Your task to perform on an android device: Open the phone app and click the voicemail tab. Image 0: 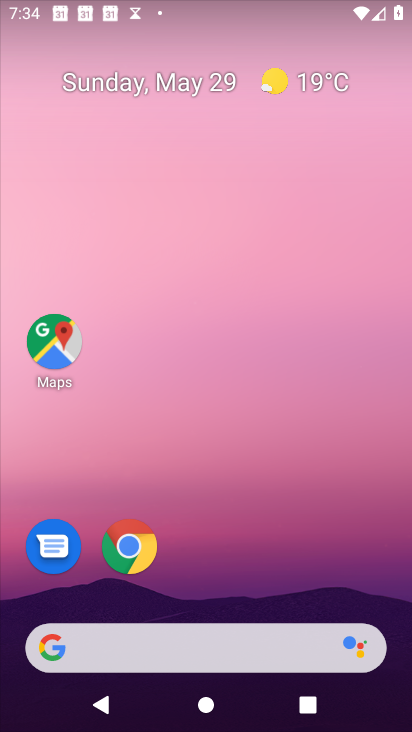
Step 0: drag from (197, 587) to (212, 1)
Your task to perform on an android device: Open the phone app and click the voicemail tab. Image 1: 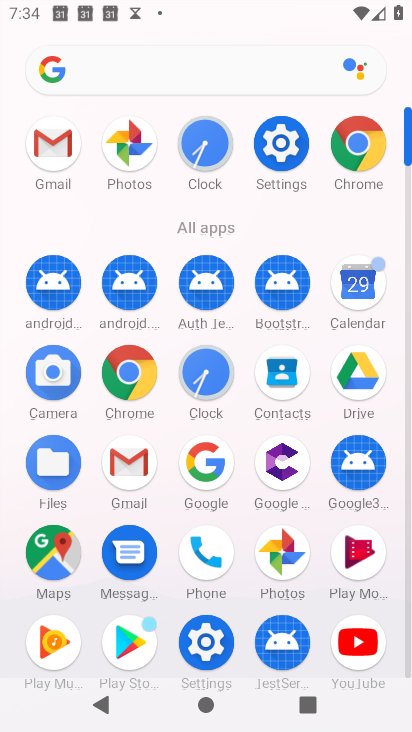
Step 1: click (200, 553)
Your task to perform on an android device: Open the phone app and click the voicemail tab. Image 2: 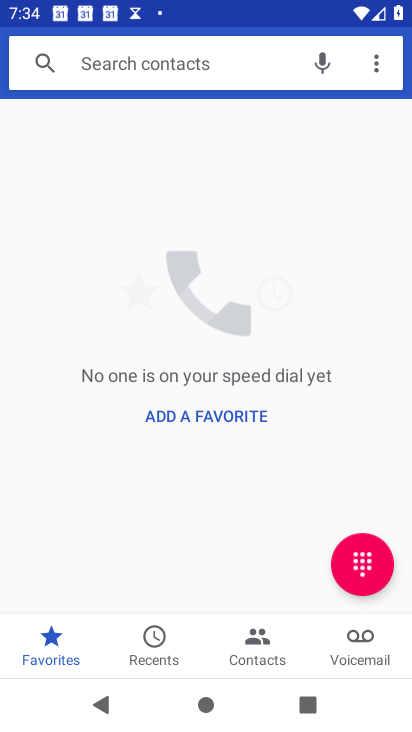
Step 2: click (370, 665)
Your task to perform on an android device: Open the phone app and click the voicemail tab. Image 3: 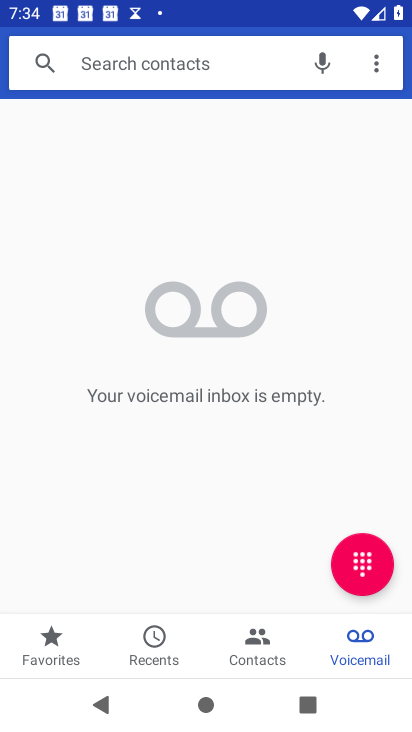
Step 3: task complete